Your task to perform on an android device: change timer sound Image 0: 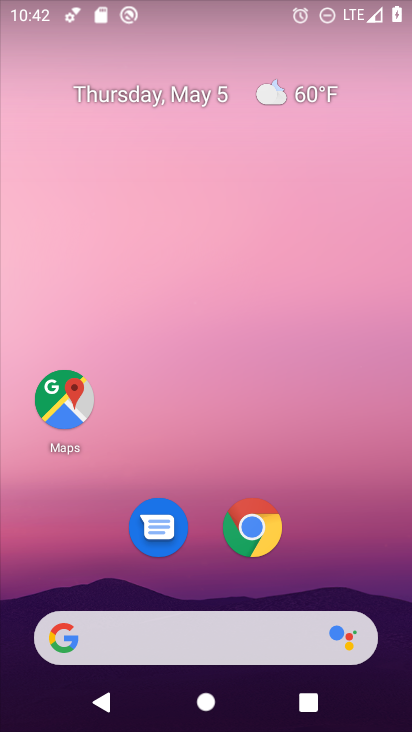
Step 0: drag from (205, 657) to (340, 79)
Your task to perform on an android device: change timer sound Image 1: 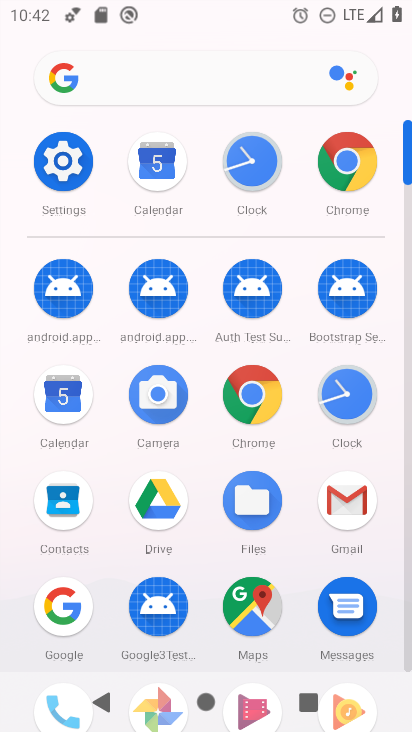
Step 1: click (366, 402)
Your task to perform on an android device: change timer sound Image 2: 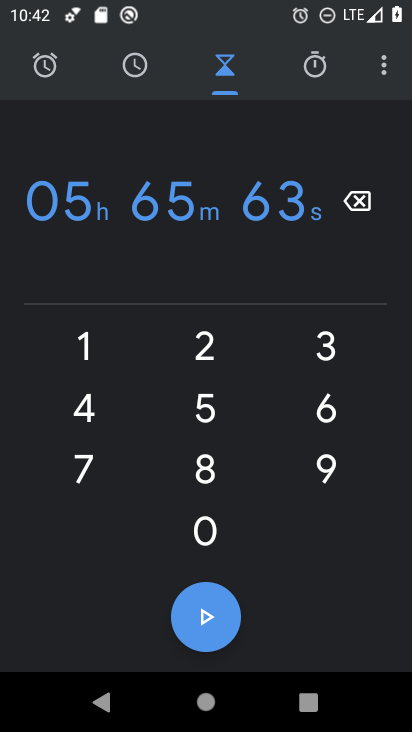
Step 2: click (390, 70)
Your task to perform on an android device: change timer sound Image 3: 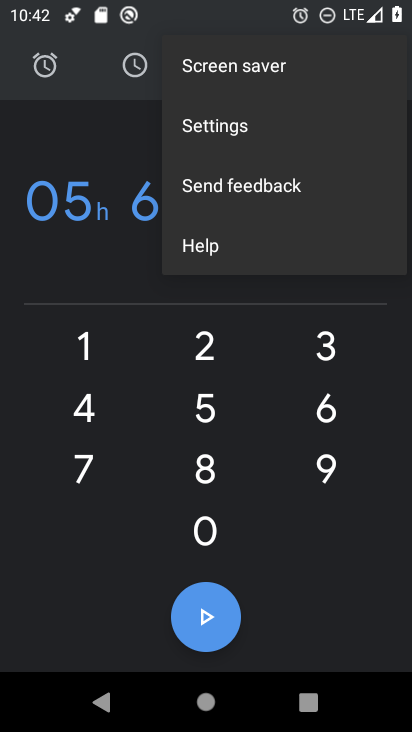
Step 3: click (302, 136)
Your task to perform on an android device: change timer sound Image 4: 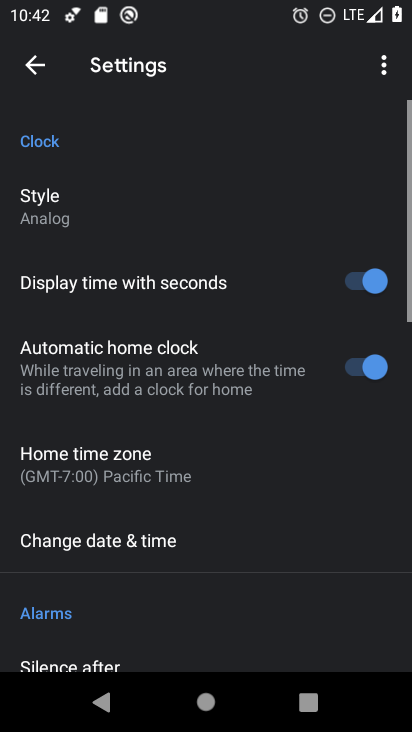
Step 4: drag from (249, 583) to (236, 68)
Your task to perform on an android device: change timer sound Image 5: 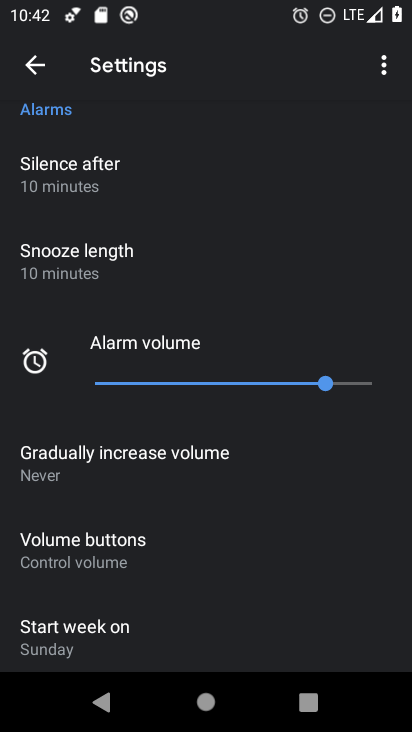
Step 5: drag from (292, 581) to (303, 100)
Your task to perform on an android device: change timer sound Image 6: 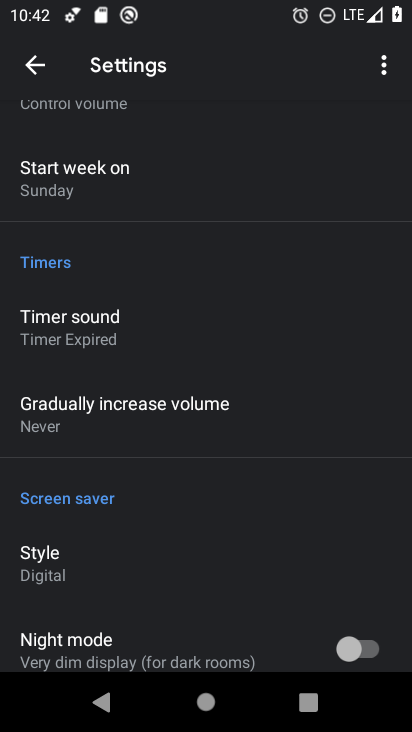
Step 6: click (112, 337)
Your task to perform on an android device: change timer sound Image 7: 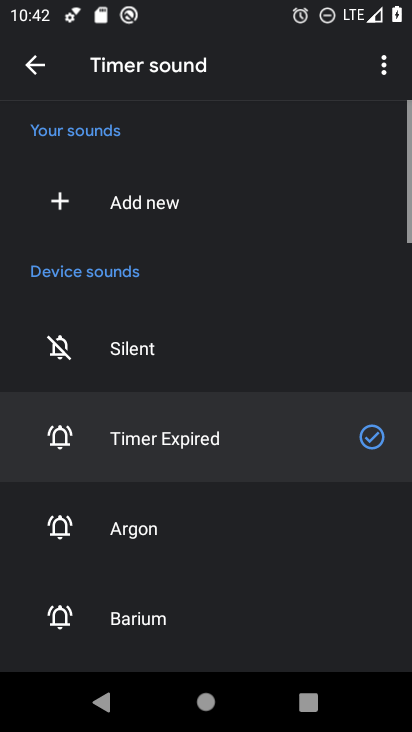
Step 7: click (147, 528)
Your task to perform on an android device: change timer sound Image 8: 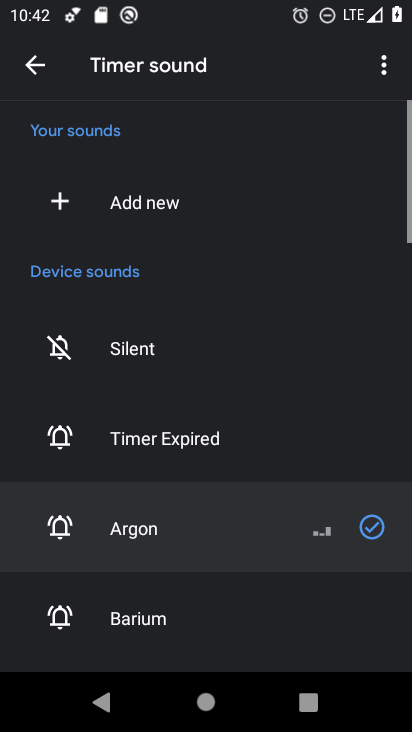
Step 8: task complete